Your task to perform on an android device: turn pop-ups on in chrome Image 0: 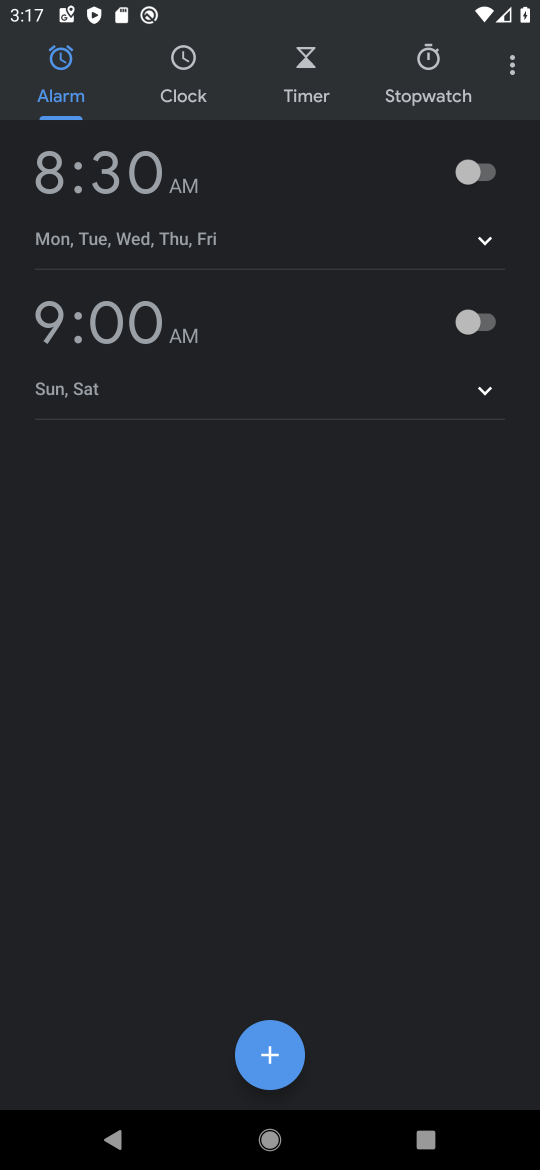
Step 0: press home button
Your task to perform on an android device: turn pop-ups on in chrome Image 1: 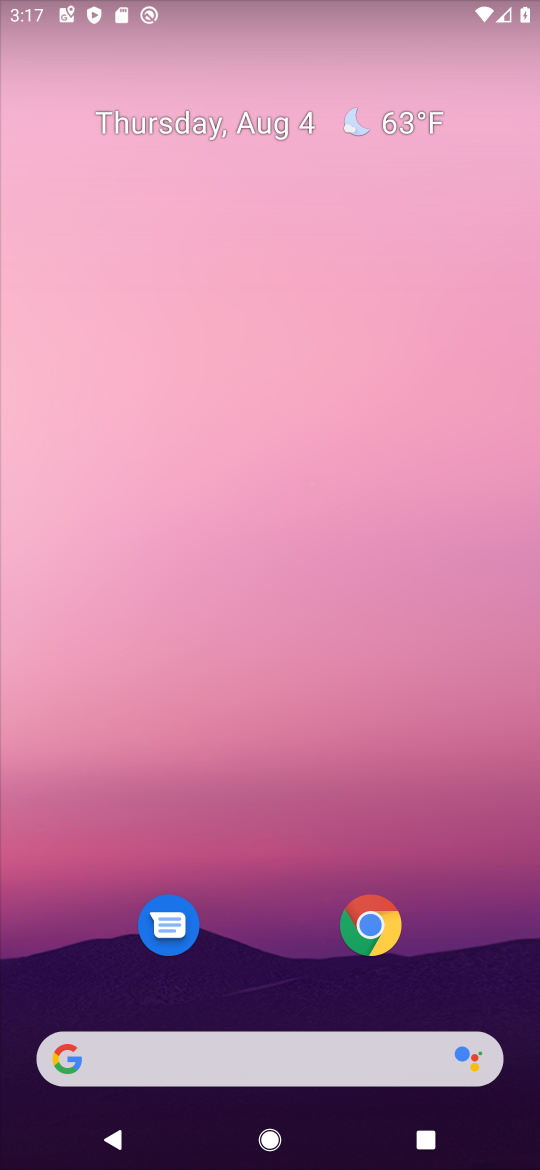
Step 1: click (383, 944)
Your task to perform on an android device: turn pop-ups on in chrome Image 2: 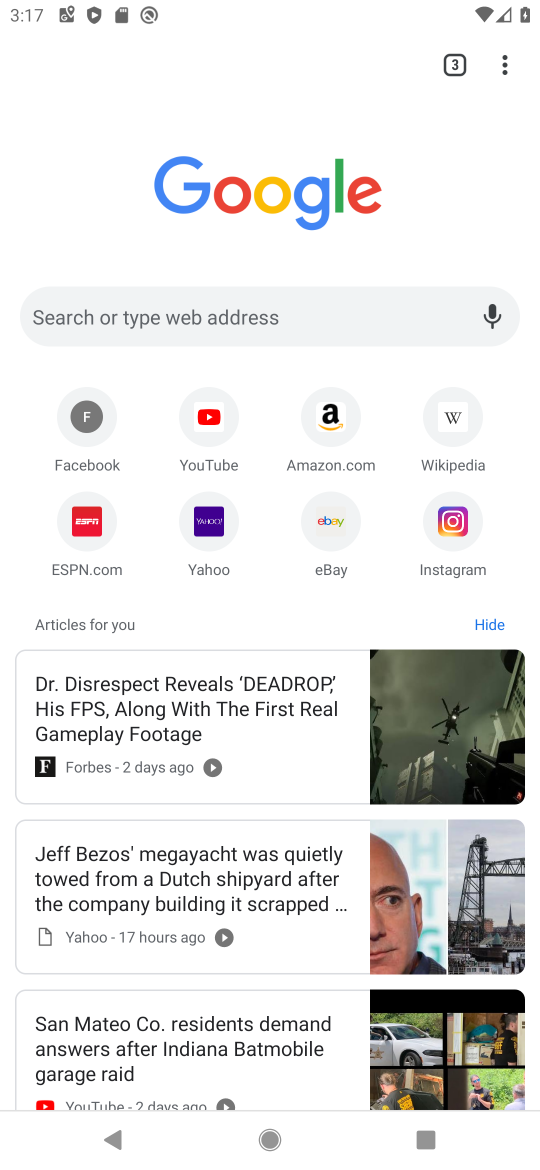
Step 2: click (508, 58)
Your task to perform on an android device: turn pop-ups on in chrome Image 3: 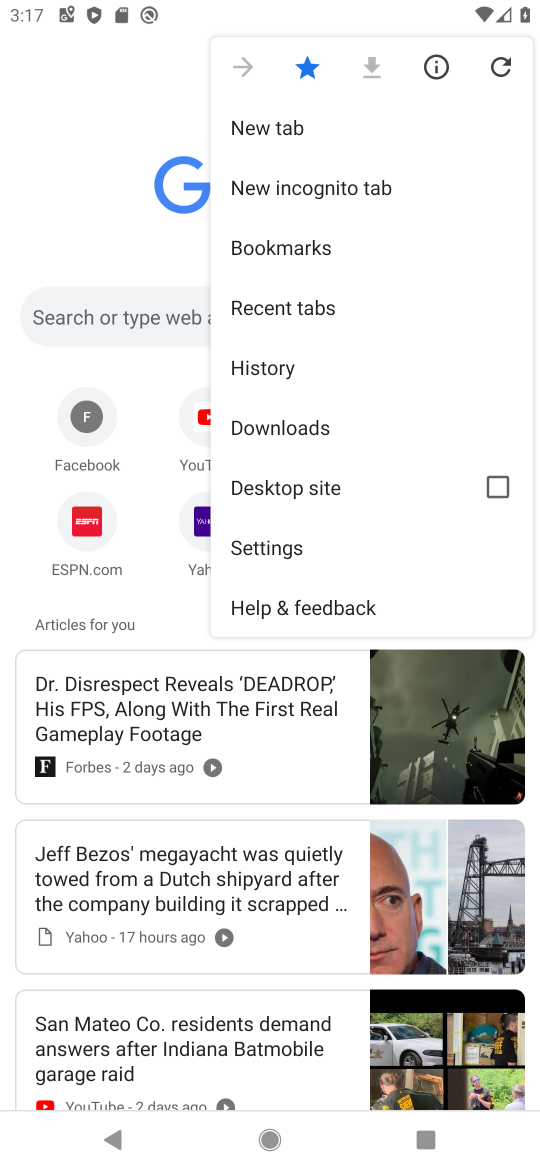
Step 3: click (313, 547)
Your task to perform on an android device: turn pop-ups on in chrome Image 4: 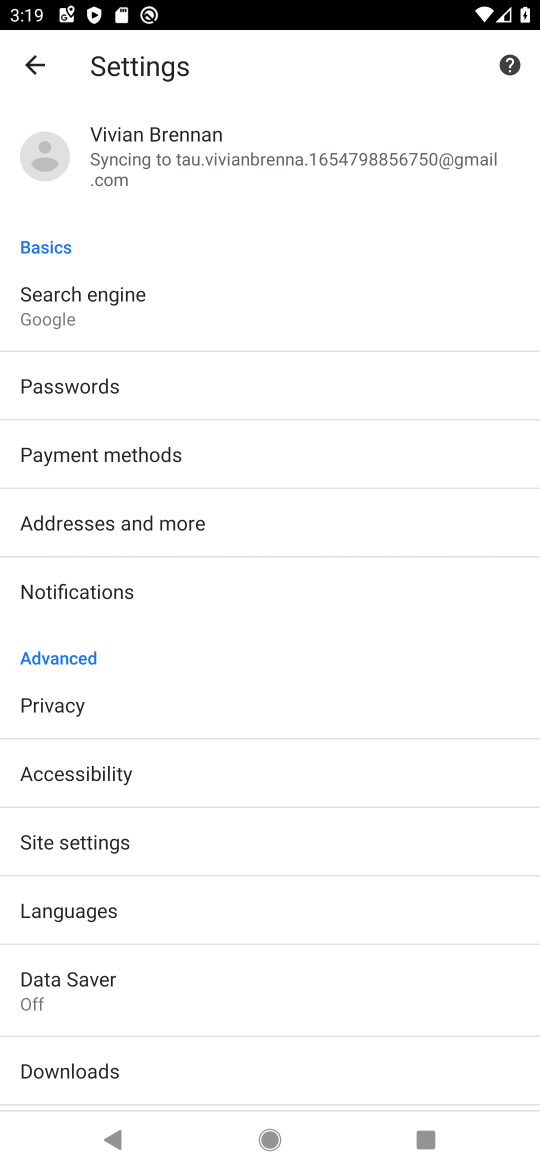
Step 4: drag from (408, 640) to (383, 209)
Your task to perform on an android device: turn pop-ups on in chrome Image 5: 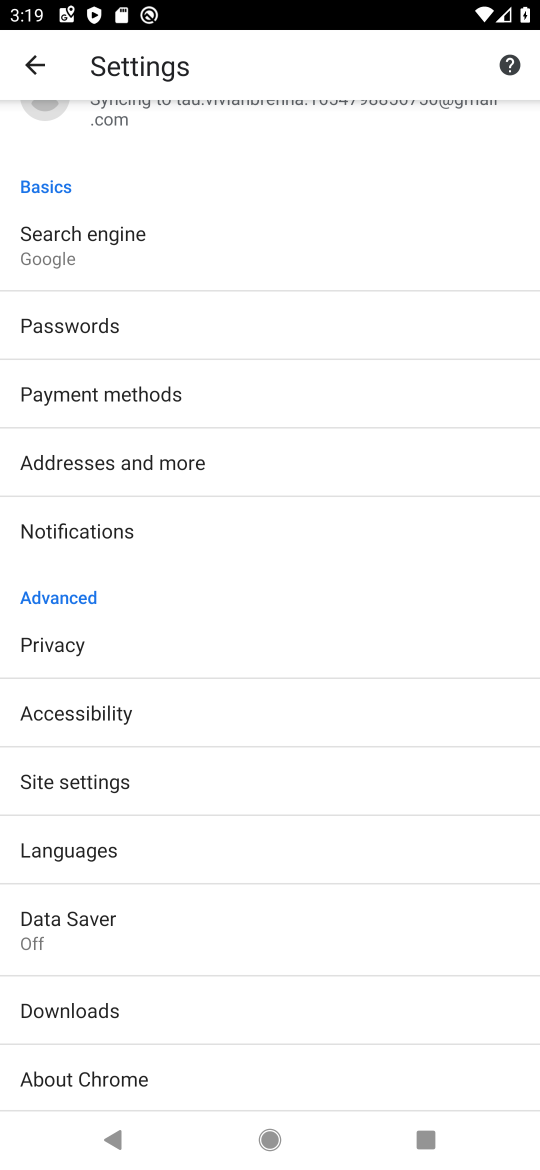
Step 5: click (77, 533)
Your task to perform on an android device: turn pop-ups on in chrome Image 6: 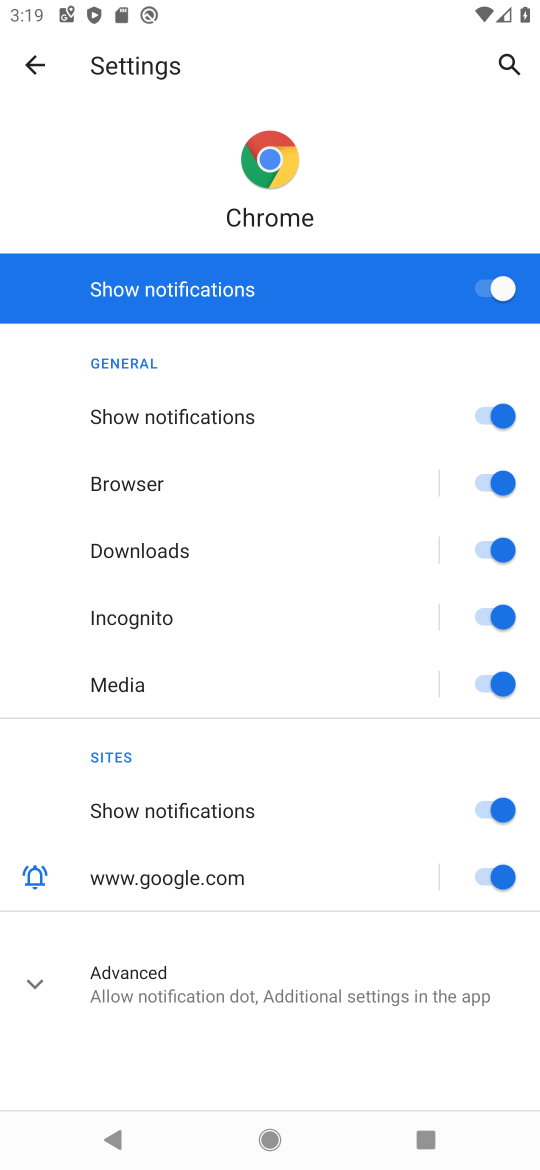
Step 6: drag from (314, 702) to (298, 445)
Your task to perform on an android device: turn pop-ups on in chrome Image 7: 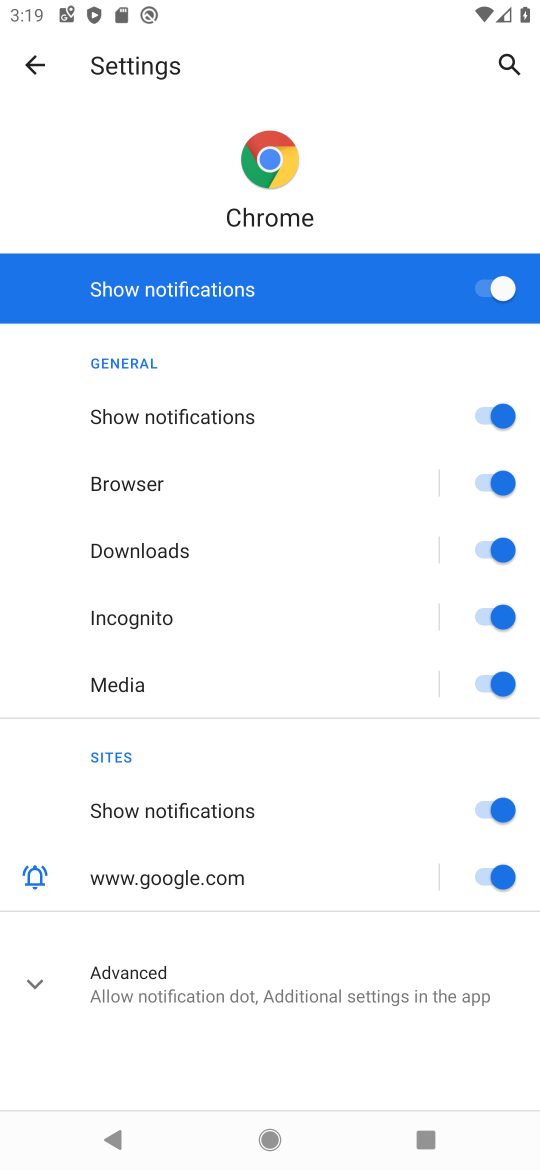
Step 7: click (288, 978)
Your task to perform on an android device: turn pop-ups on in chrome Image 8: 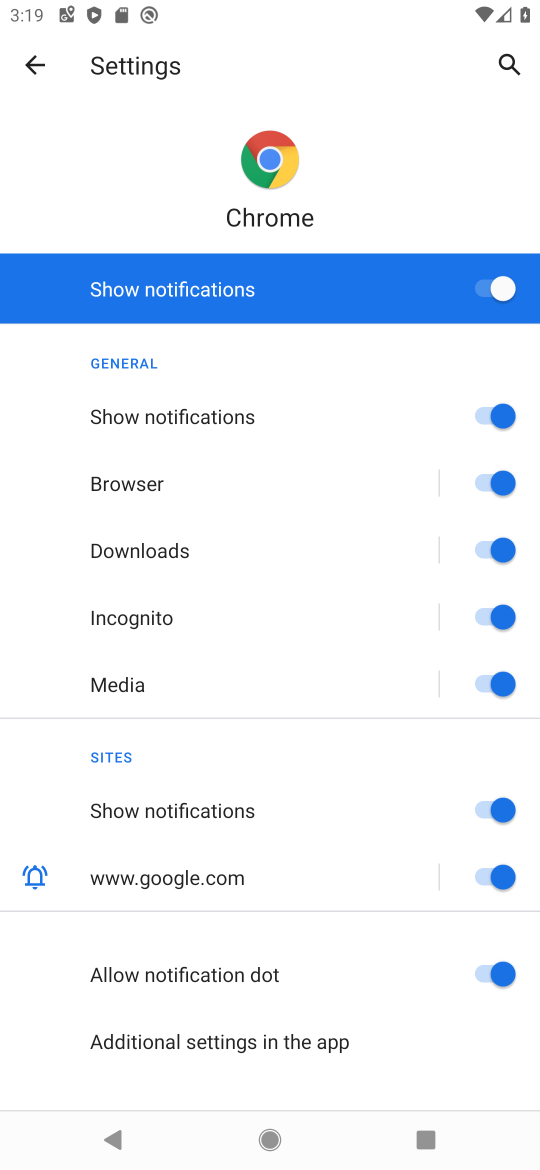
Step 8: task complete